Your task to perform on an android device: Show me popular videos on Youtube Image 0: 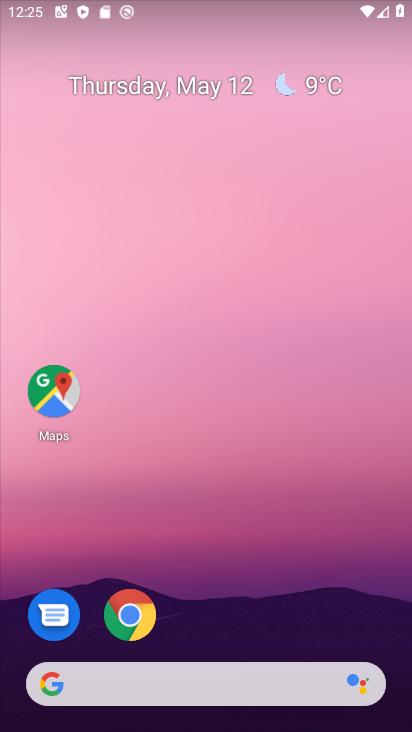
Step 0: drag from (359, 548) to (363, 22)
Your task to perform on an android device: Show me popular videos on Youtube Image 1: 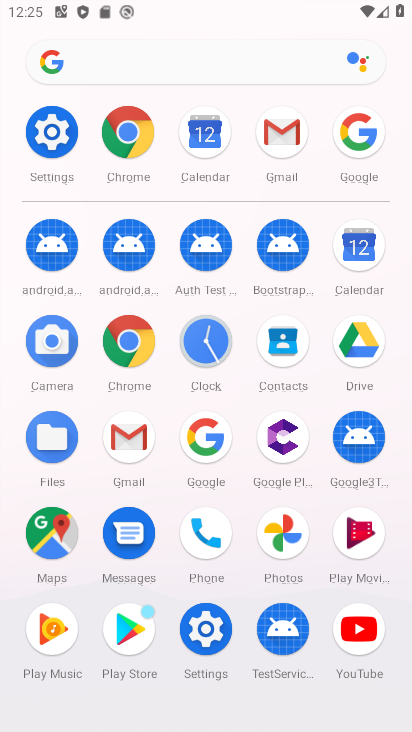
Step 1: click (364, 643)
Your task to perform on an android device: Show me popular videos on Youtube Image 2: 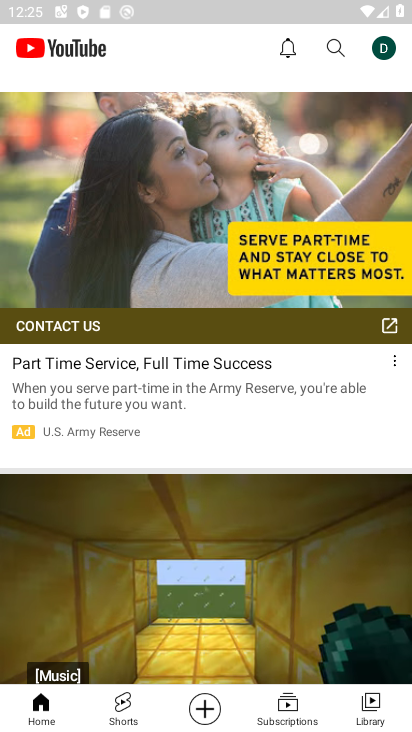
Step 2: click (39, 42)
Your task to perform on an android device: Show me popular videos on Youtube Image 3: 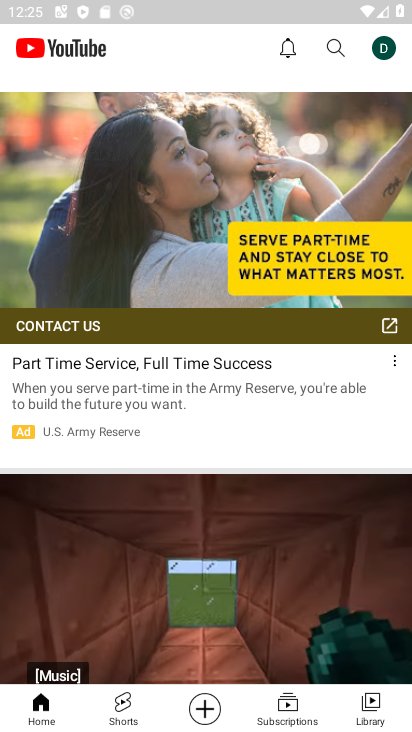
Step 3: click (41, 47)
Your task to perform on an android device: Show me popular videos on Youtube Image 4: 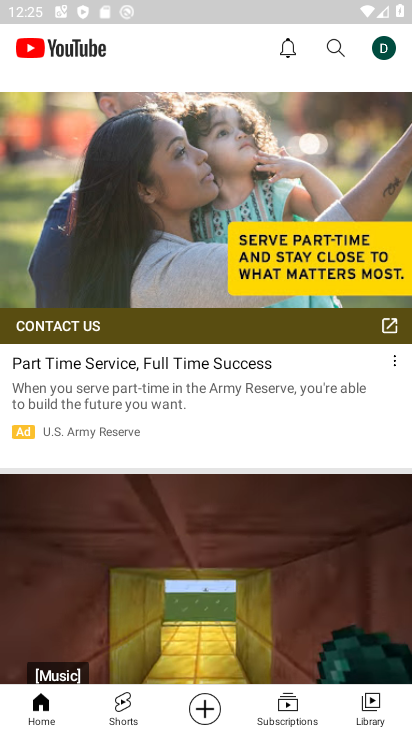
Step 4: drag from (150, 516) to (198, 43)
Your task to perform on an android device: Show me popular videos on Youtube Image 5: 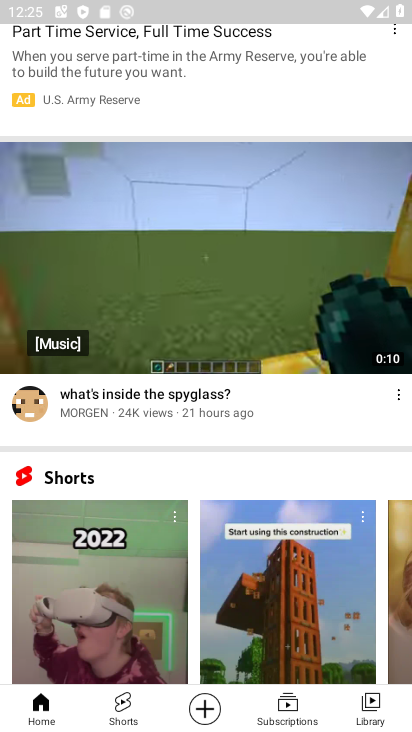
Step 5: drag from (219, 458) to (206, 36)
Your task to perform on an android device: Show me popular videos on Youtube Image 6: 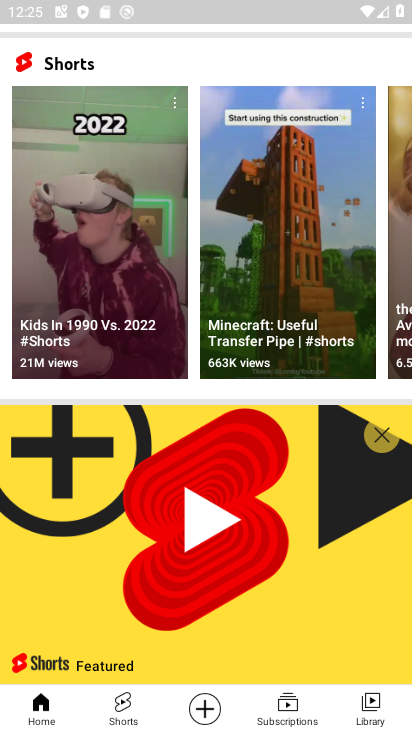
Step 6: drag from (200, 473) to (259, 23)
Your task to perform on an android device: Show me popular videos on Youtube Image 7: 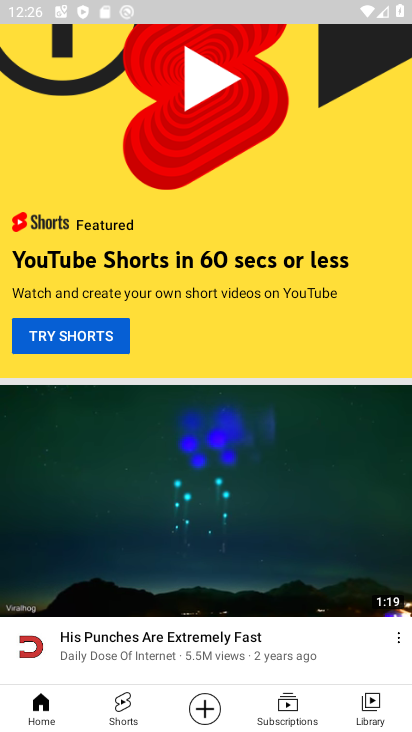
Step 7: drag from (217, 512) to (338, 106)
Your task to perform on an android device: Show me popular videos on Youtube Image 8: 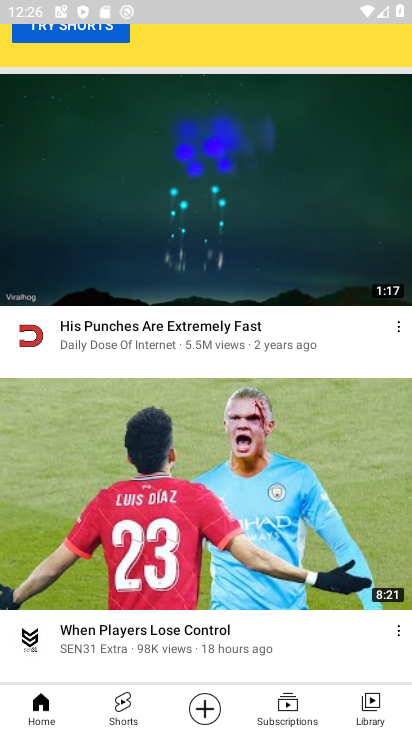
Step 8: drag from (233, 482) to (253, 155)
Your task to perform on an android device: Show me popular videos on Youtube Image 9: 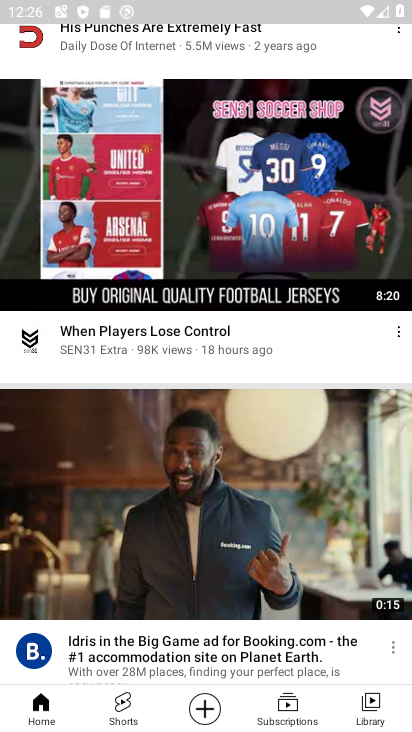
Step 9: drag from (185, 606) to (256, 396)
Your task to perform on an android device: Show me popular videos on Youtube Image 10: 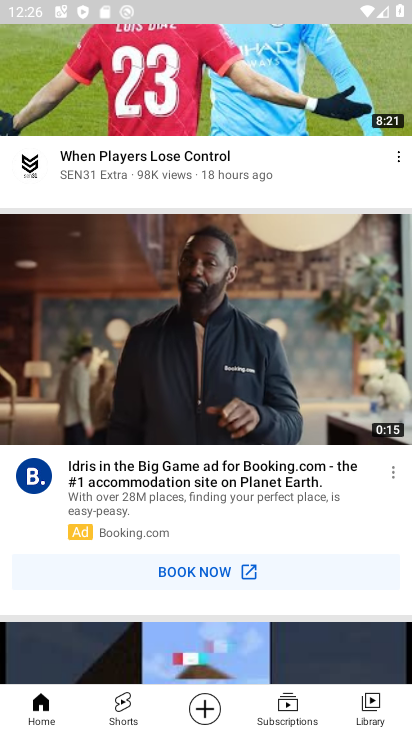
Step 10: click (268, 701)
Your task to perform on an android device: Show me popular videos on Youtube Image 11: 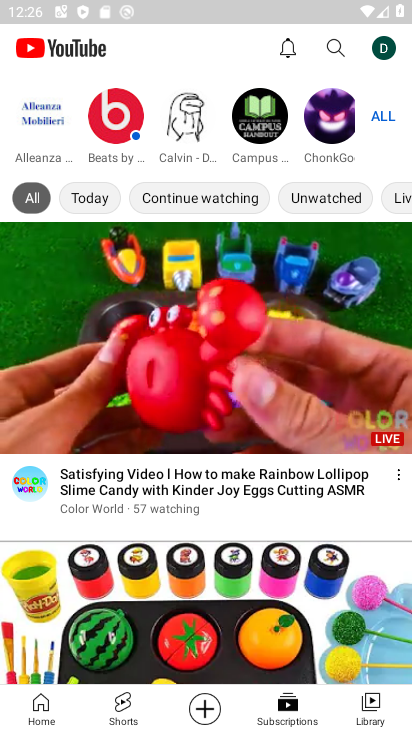
Step 11: click (395, 705)
Your task to perform on an android device: Show me popular videos on Youtube Image 12: 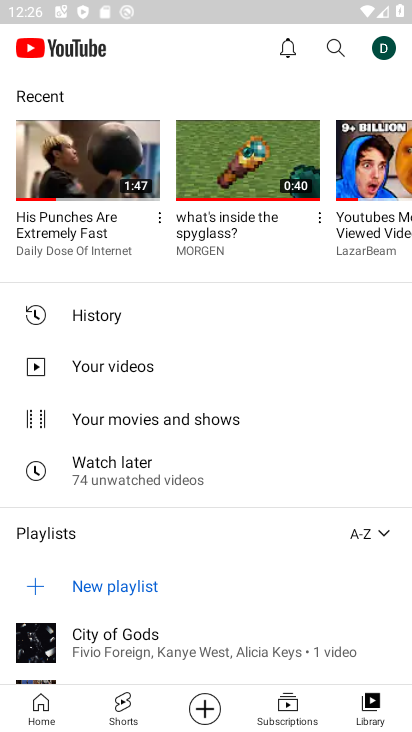
Step 12: click (62, 710)
Your task to perform on an android device: Show me popular videos on Youtube Image 13: 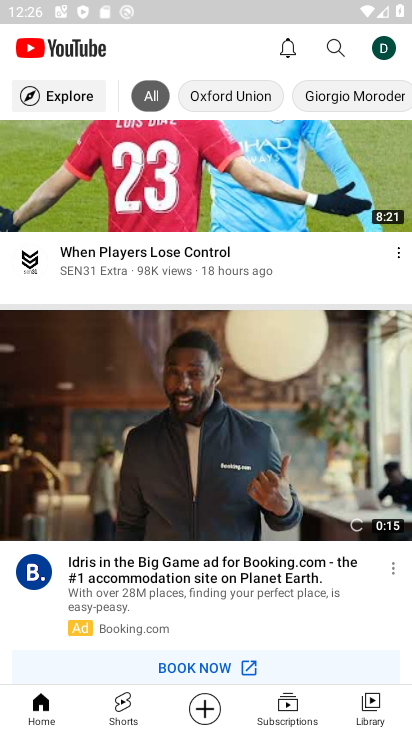
Step 13: drag from (176, 285) to (250, 728)
Your task to perform on an android device: Show me popular videos on Youtube Image 14: 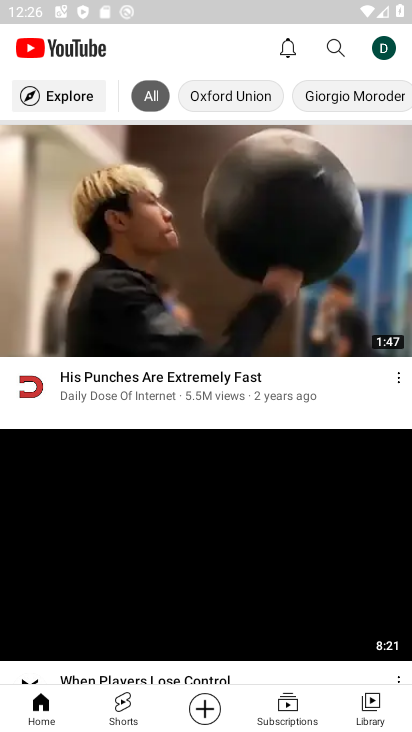
Step 14: drag from (196, 319) to (228, 679)
Your task to perform on an android device: Show me popular videos on Youtube Image 15: 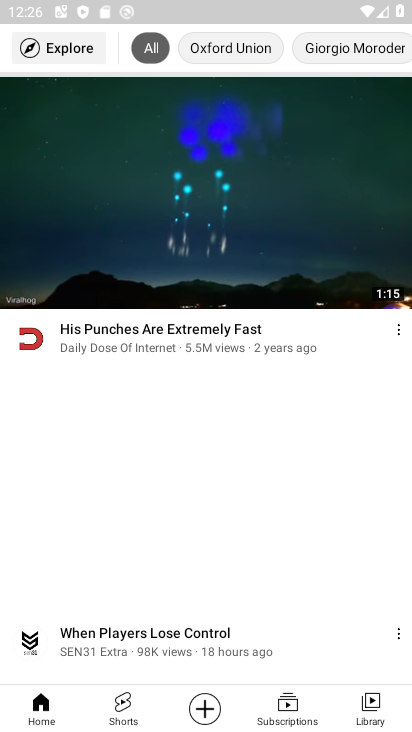
Step 15: drag from (132, 396) to (163, 659)
Your task to perform on an android device: Show me popular videos on Youtube Image 16: 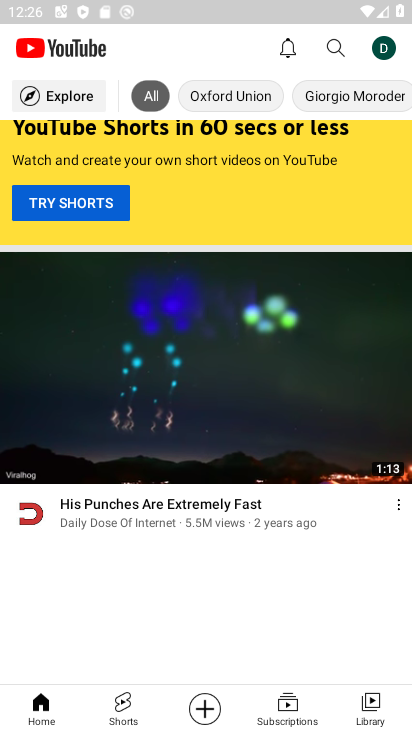
Step 16: click (45, 43)
Your task to perform on an android device: Show me popular videos on Youtube Image 17: 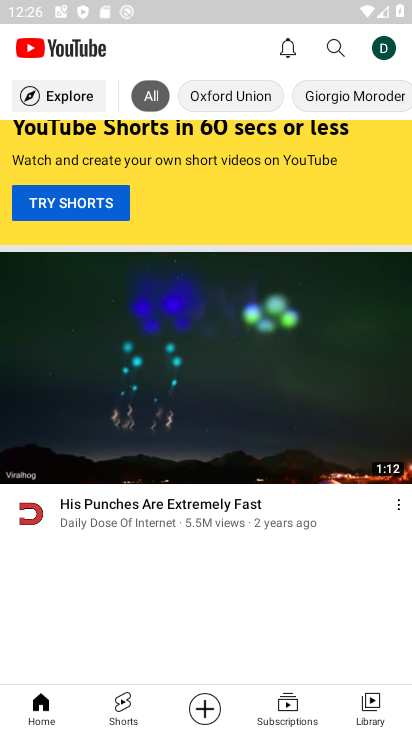
Step 17: click (68, 50)
Your task to perform on an android device: Show me popular videos on Youtube Image 18: 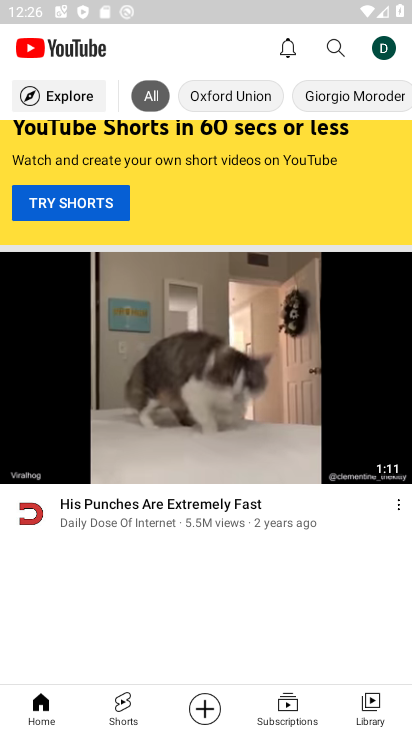
Step 18: drag from (92, 212) to (179, 711)
Your task to perform on an android device: Show me popular videos on Youtube Image 19: 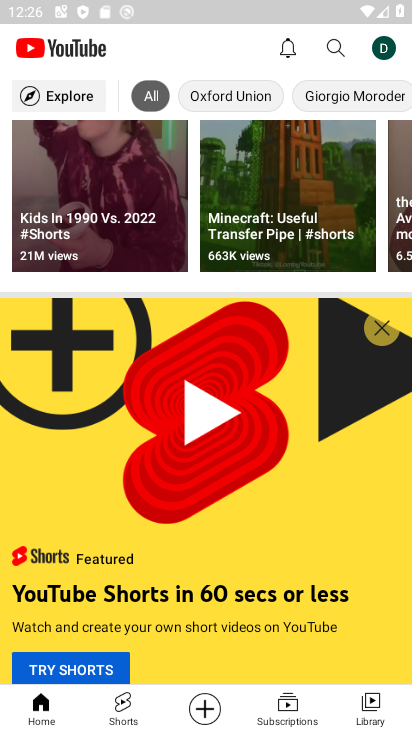
Step 19: drag from (217, 168) to (184, 661)
Your task to perform on an android device: Show me popular videos on Youtube Image 20: 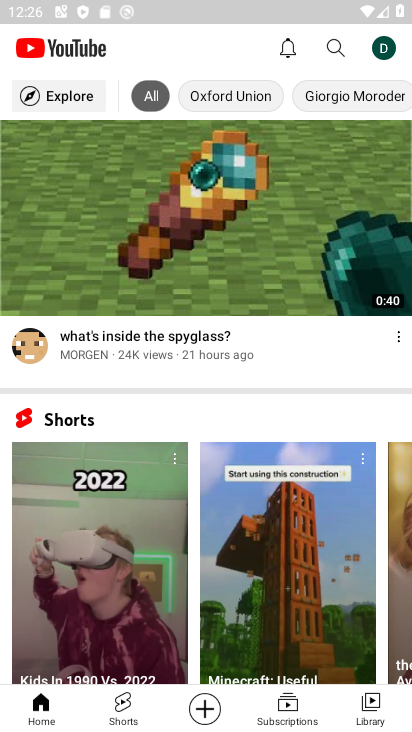
Step 20: click (61, 102)
Your task to perform on an android device: Show me popular videos on Youtube Image 21: 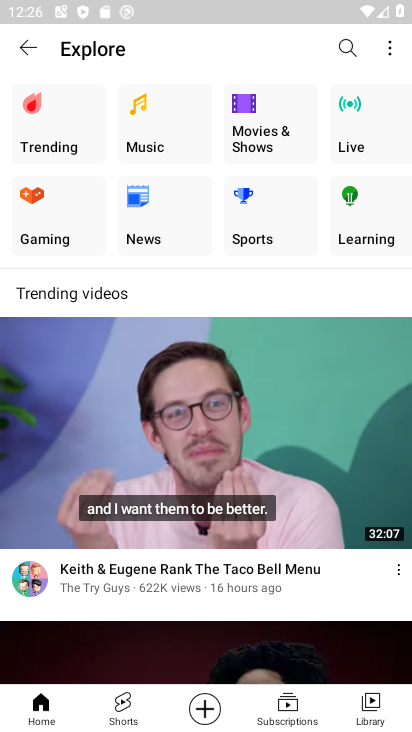
Step 21: drag from (377, 167) to (33, 152)
Your task to perform on an android device: Show me popular videos on Youtube Image 22: 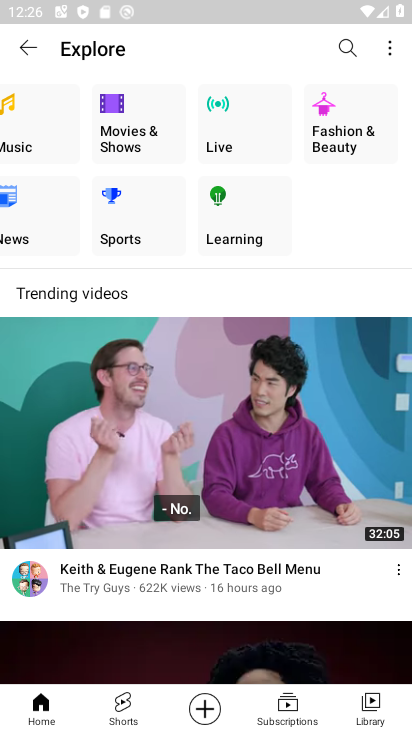
Step 22: drag from (27, 159) to (400, 149)
Your task to perform on an android device: Show me popular videos on Youtube Image 23: 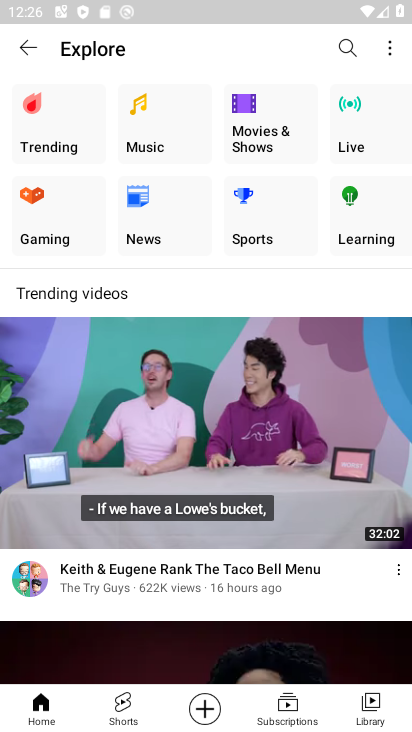
Step 23: drag from (193, 376) to (290, 15)
Your task to perform on an android device: Show me popular videos on Youtube Image 24: 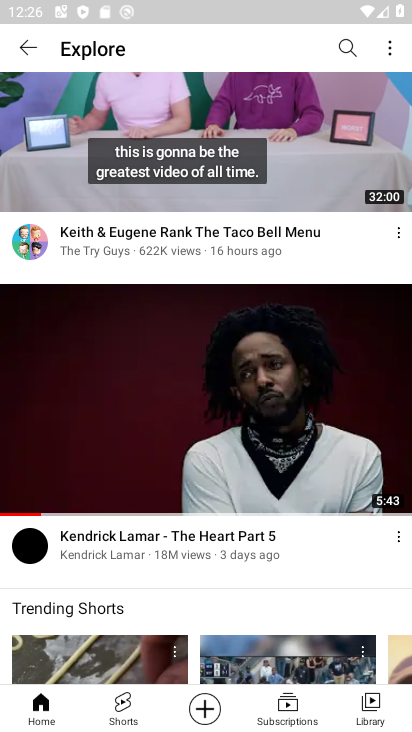
Step 24: drag from (228, 554) to (339, 65)
Your task to perform on an android device: Show me popular videos on Youtube Image 25: 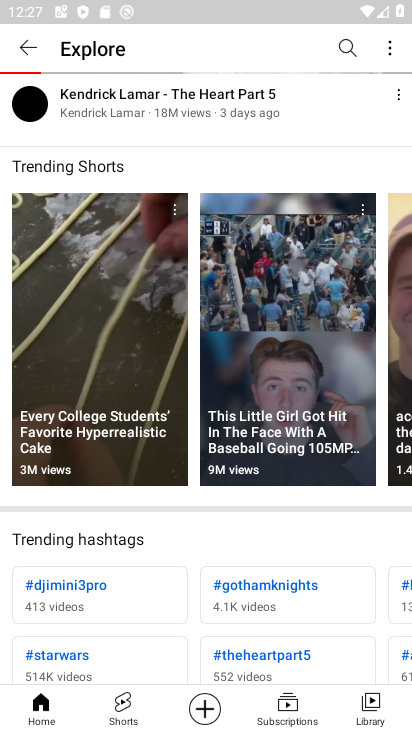
Step 25: drag from (197, 636) to (402, 178)
Your task to perform on an android device: Show me popular videos on Youtube Image 26: 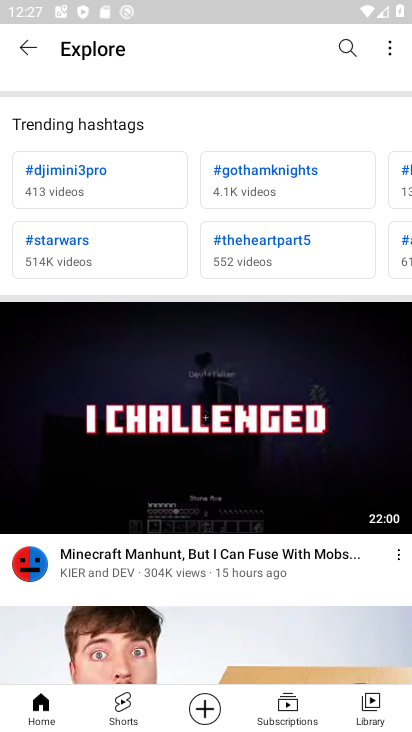
Step 26: drag from (192, 637) to (317, 273)
Your task to perform on an android device: Show me popular videos on Youtube Image 27: 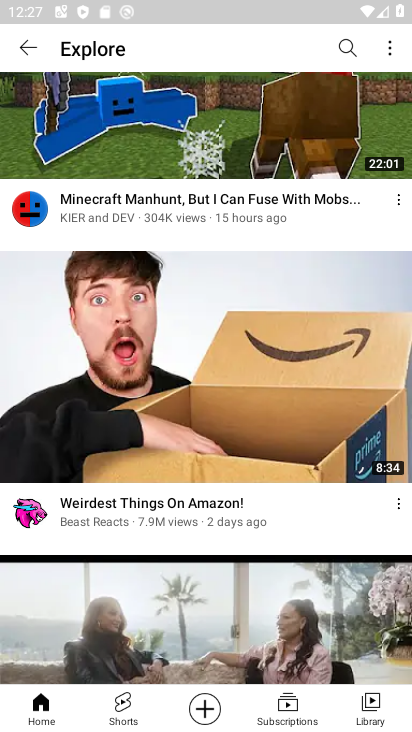
Step 27: drag from (175, 214) to (215, 730)
Your task to perform on an android device: Show me popular videos on Youtube Image 28: 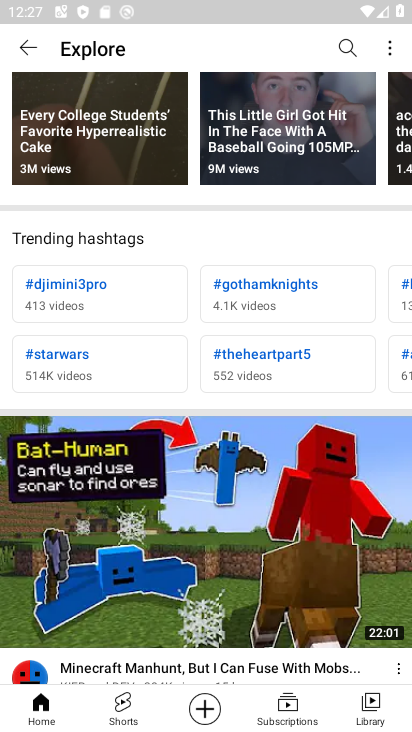
Step 28: drag from (182, 242) to (221, 707)
Your task to perform on an android device: Show me popular videos on Youtube Image 29: 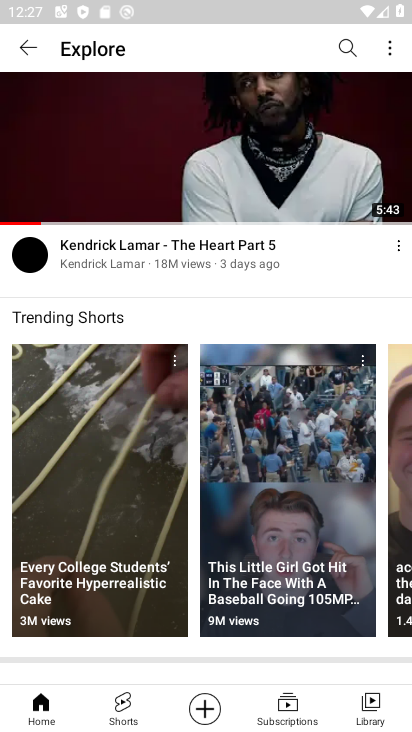
Step 29: drag from (180, 275) to (213, 714)
Your task to perform on an android device: Show me popular videos on Youtube Image 30: 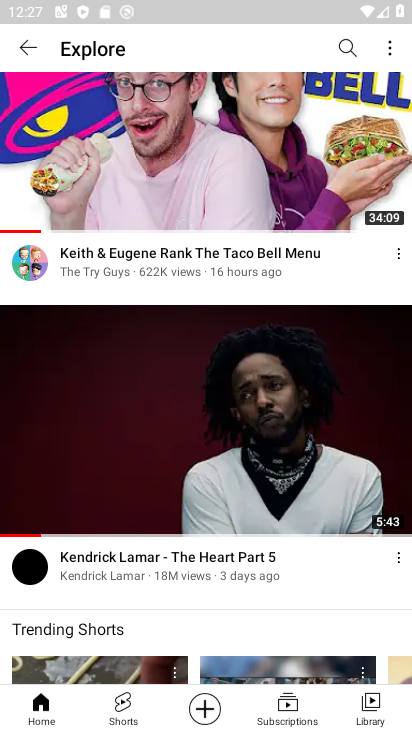
Step 30: drag from (192, 209) to (158, 705)
Your task to perform on an android device: Show me popular videos on Youtube Image 31: 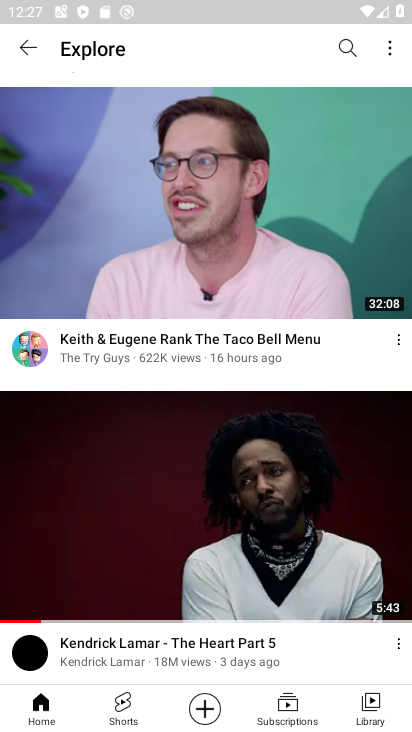
Step 31: drag from (148, 85) to (213, 653)
Your task to perform on an android device: Show me popular videos on Youtube Image 32: 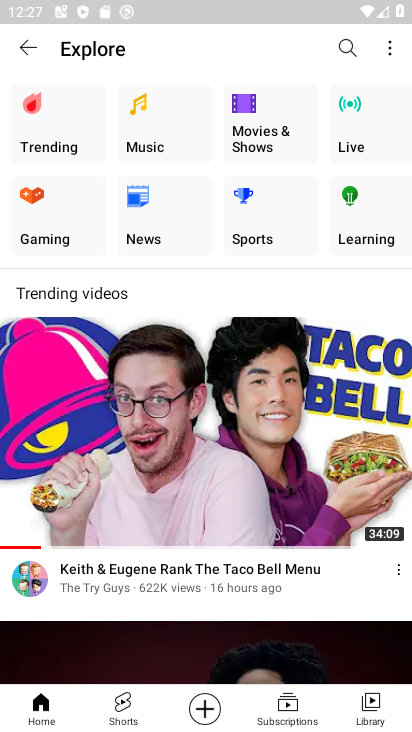
Step 32: click (29, 53)
Your task to perform on an android device: Show me popular videos on Youtube Image 33: 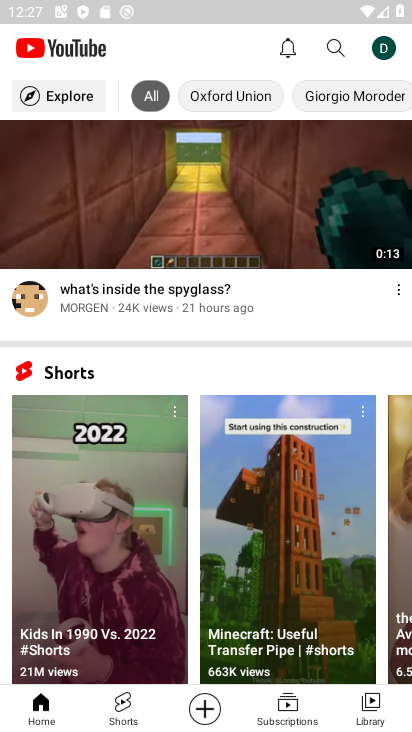
Step 33: drag from (279, 97) to (6, 109)
Your task to perform on an android device: Show me popular videos on Youtube Image 34: 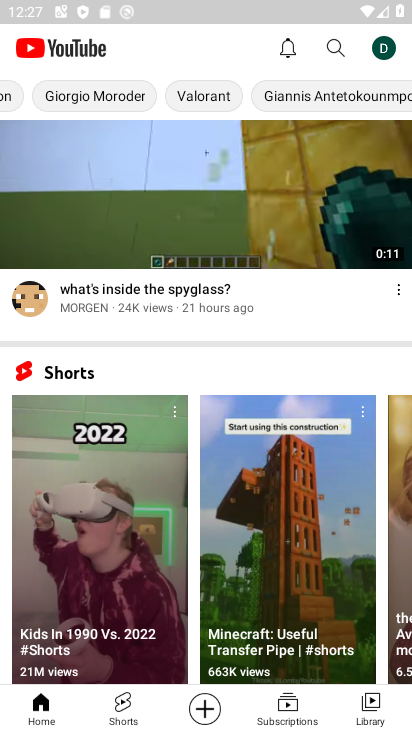
Step 34: drag from (323, 93) to (0, 112)
Your task to perform on an android device: Show me popular videos on Youtube Image 35: 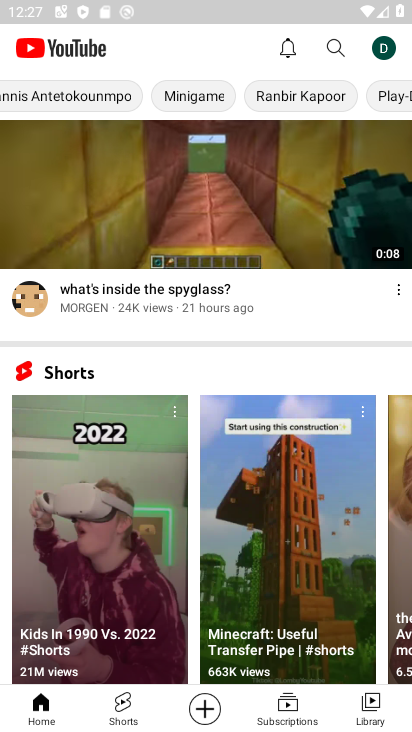
Step 35: drag from (329, 90) to (3, 117)
Your task to perform on an android device: Show me popular videos on Youtube Image 36: 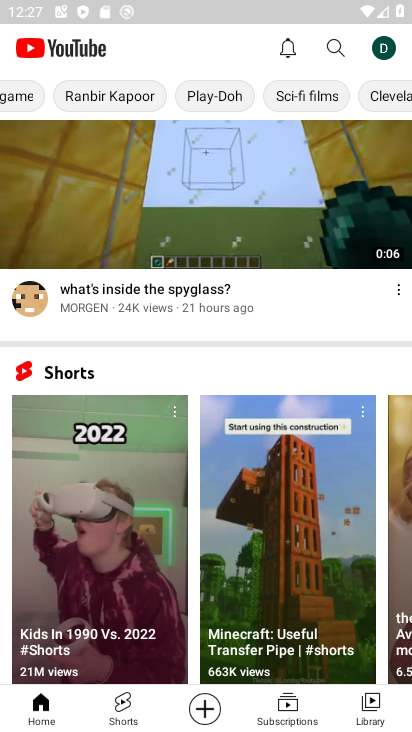
Step 36: drag from (336, 99) to (5, 96)
Your task to perform on an android device: Show me popular videos on Youtube Image 37: 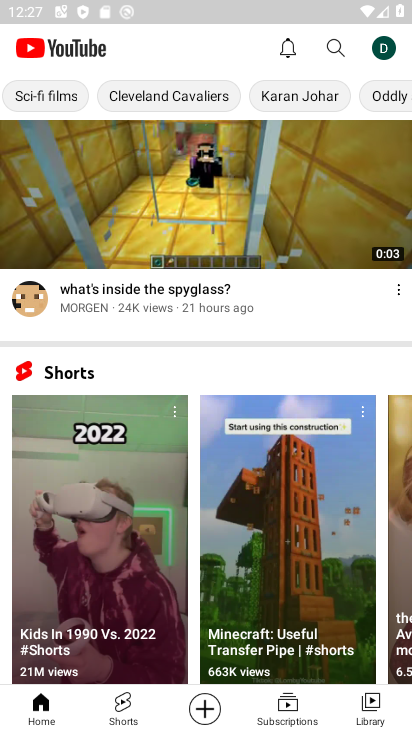
Step 37: drag from (320, 89) to (12, 84)
Your task to perform on an android device: Show me popular videos on Youtube Image 38: 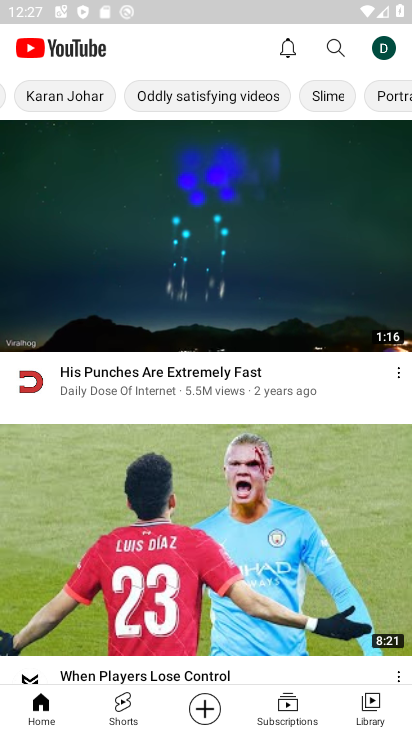
Step 38: drag from (382, 91) to (0, 110)
Your task to perform on an android device: Show me popular videos on Youtube Image 39: 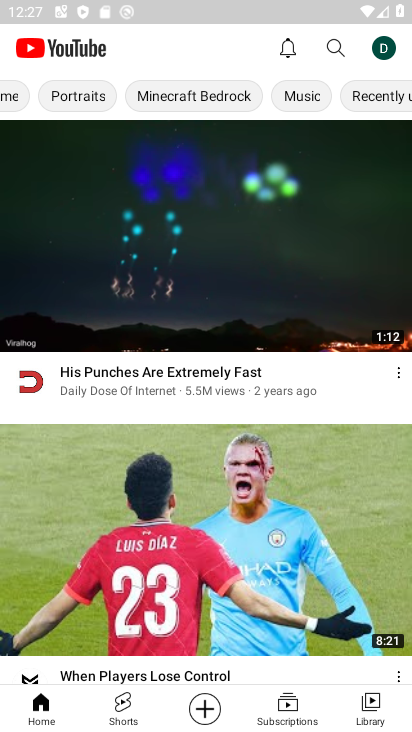
Step 39: drag from (374, 93) to (9, 69)
Your task to perform on an android device: Show me popular videos on Youtube Image 40: 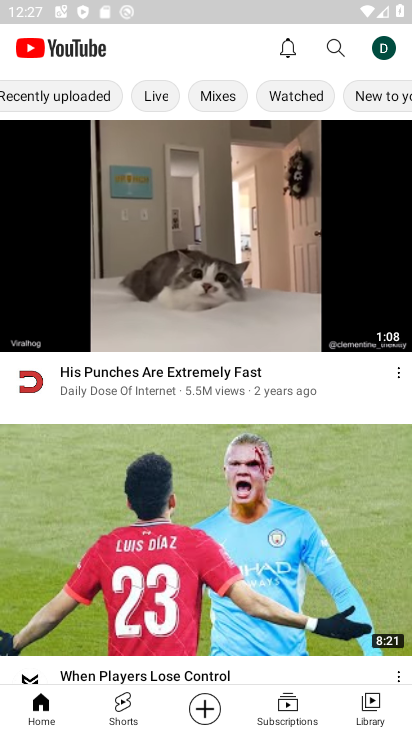
Step 40: drag from (381, 95) to (7, 130)
Your task to perform on an android device: Show me popular videos on Youtube Image 41: 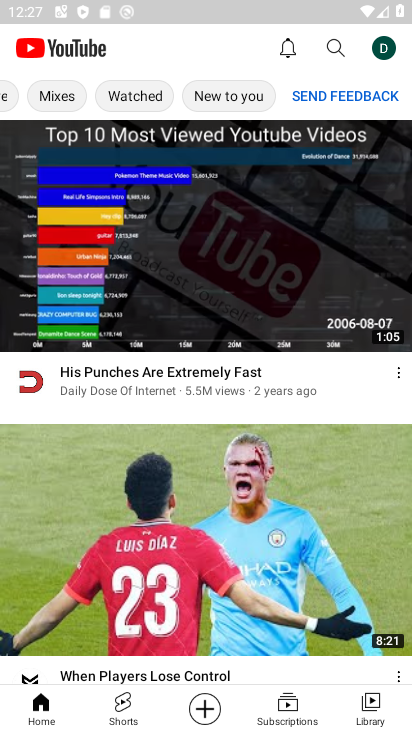
Step 41: drag from (314, 99) to (93, 97)
Your task to perform on an android device: Show me popular videos on Youtube Image 42: 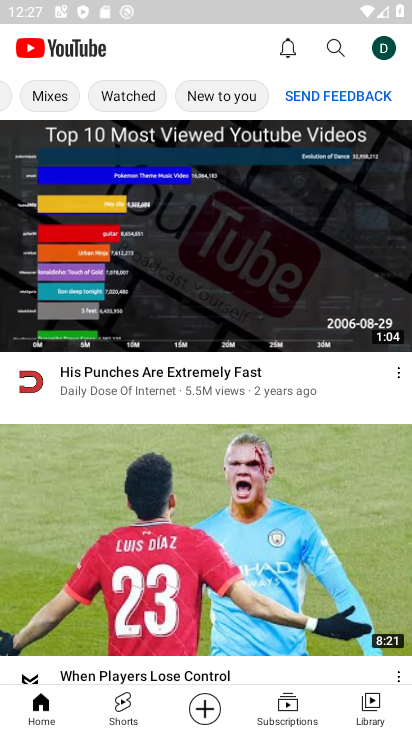
Step 42: drag from (98, 97) to (251, 92)
Your task to perform on an android device: Show me popular videos on Youtube Image 43: 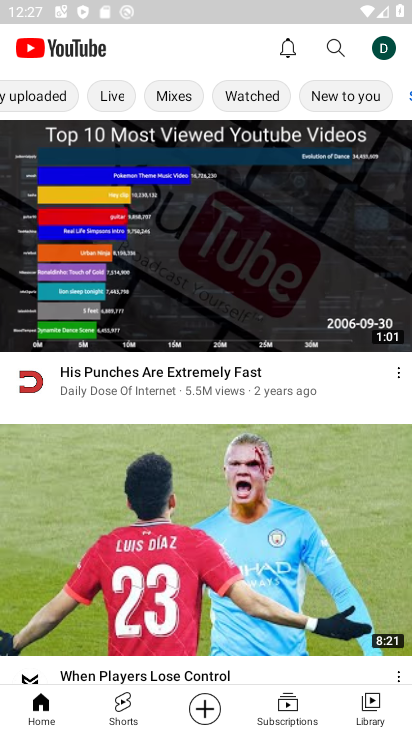
Step 43: drag from (50, 95) to (365, 92)
Your task to perform on an android device: Show me popular videos on Youtube Image 44: 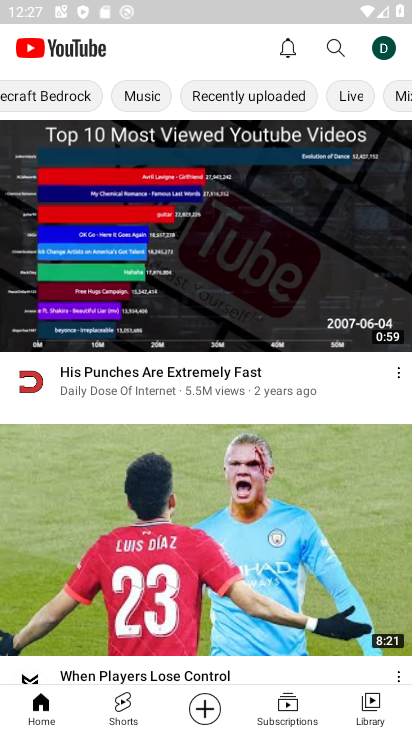
Step 44: drag from (69, 78) to (357, 90)
Your task to perform on an android device: Show me popular videos on Youtube Image 45: 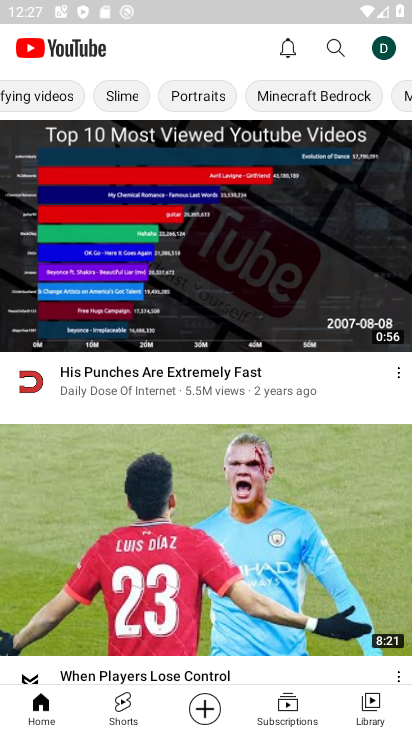
Step 45: drag from (85, 98) to (359, 98)
Your task to perform on an android device: Show me popular videos on Youtube Image 46: 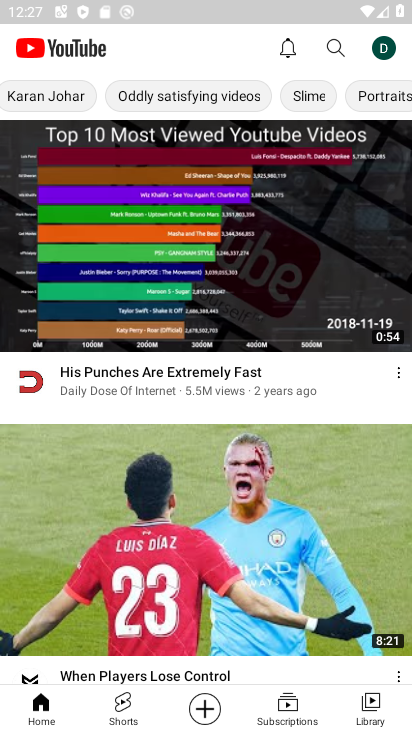
Step 46: drag from (48, 95) to (399, 151)
Your task to perform on an android device: Show me popular videos on Youtube Image 47: 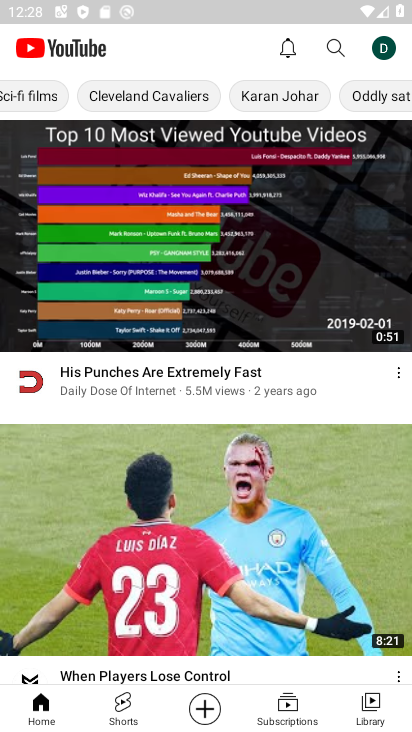
Step 47: drag from (34, 91) to (389, 76)
Your task to perform on an android device: Show me popular videos on Youtube Image 48: 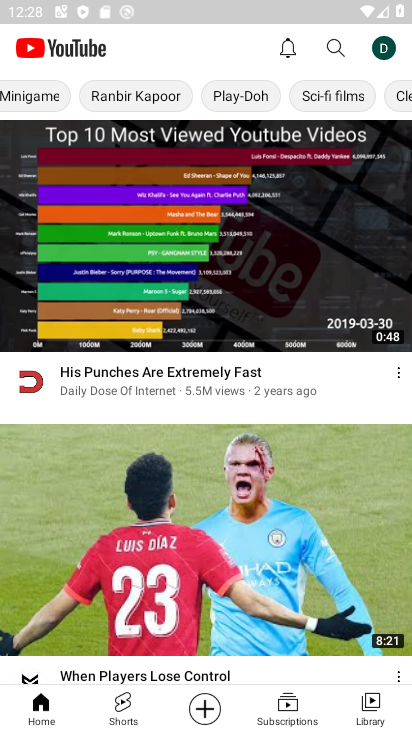
Step 48: drag from (44, 98) to (330, 111)
Your task to perform on an android device: Show me popular videos on Youtube Image 49: 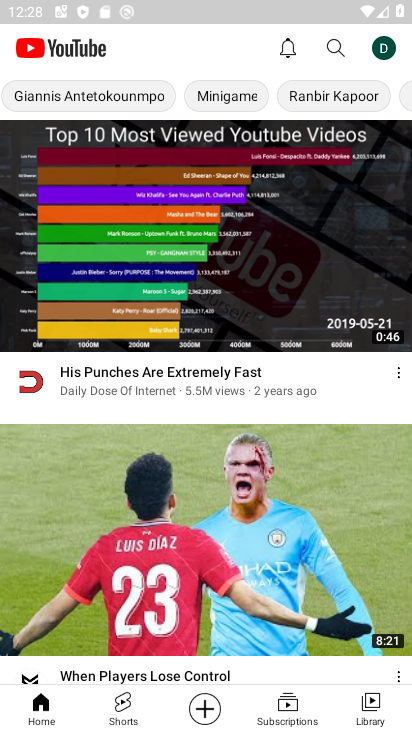
Step 49: drag from (32, 93) to (383, 81)
Your task to perform on an android device: Show me popular videos on Youtube Image 50: 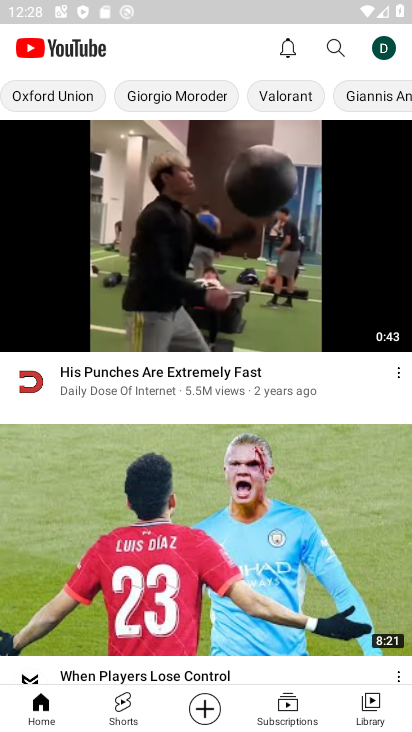
Step 50: drag from (7, 105) to (382, 102)
Your task to perform on an android device: Show me popular videos on Youtube Image 51: 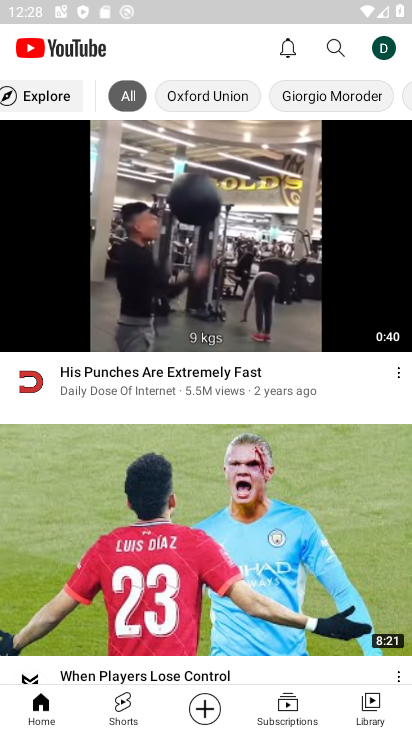
Step 51: click (21, 98)
Your task to perform on an android device: Show me popular videos on Youtube Image 52: 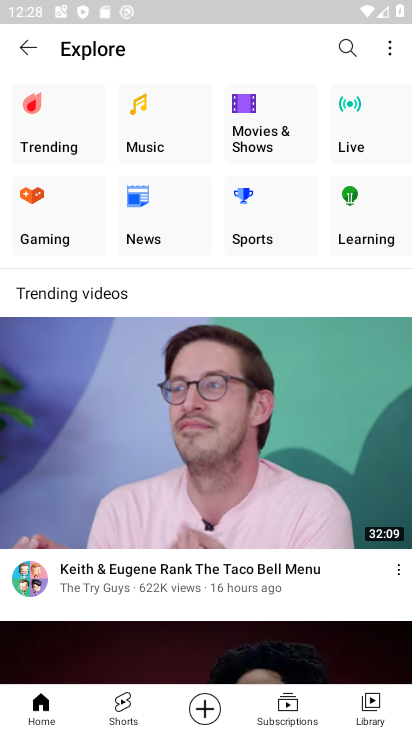
Step 52: click (26, 108)
Your task to perform on an android device: Show me popular videos on Youtube Image 53: 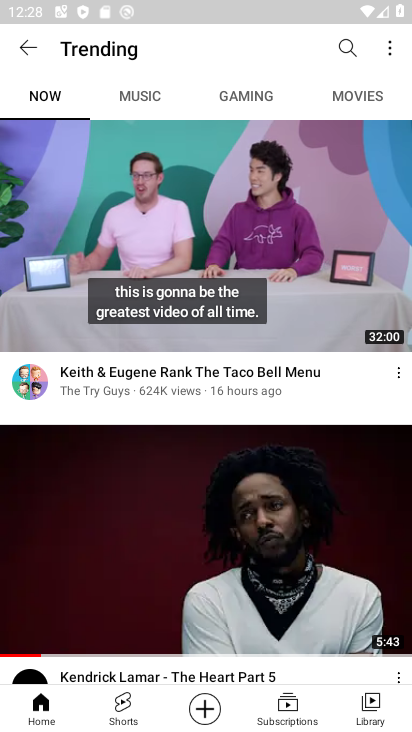
Step 53: click (137, 700)
Your task to perform on an android device: Show me popular videos on Youtube Image 54: 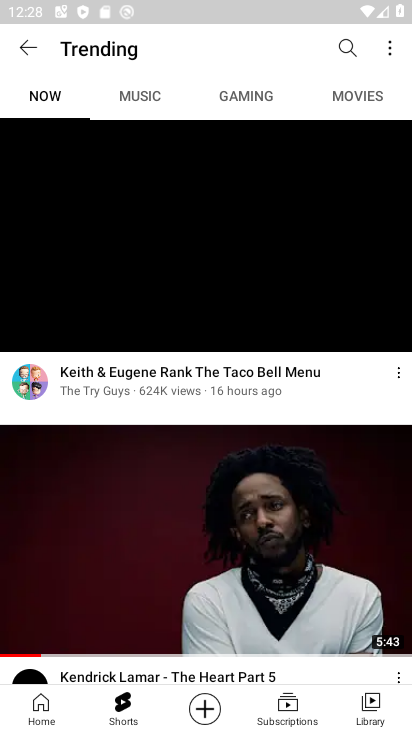
Step 54: click (120, 702)
Your task to perform on an android device: Show me popular videos on Youtube Image 55: 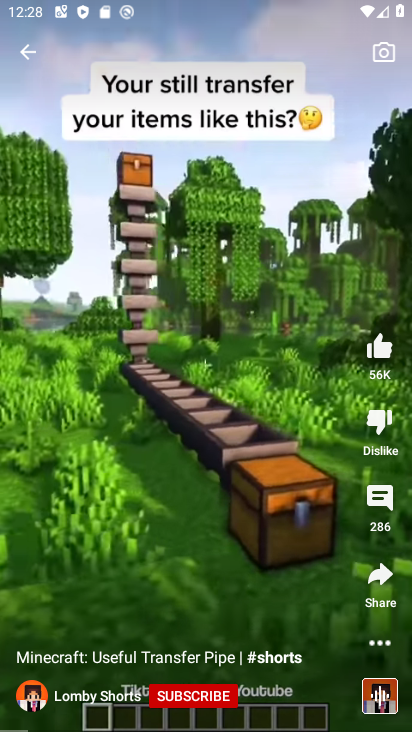
Step 55: click (35, 46)
Your task to perform on an android device: Show me popular videos on Youtube Image 56: 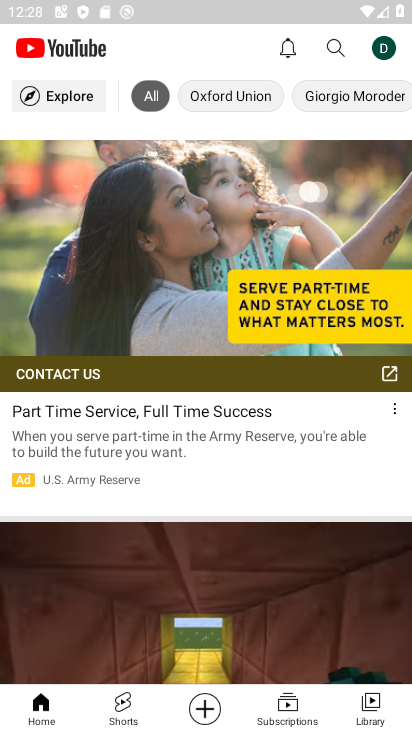
Step 56: click (373, 717)
Your task to perform on an android device: Show me popular videos on Youtube Image 57: 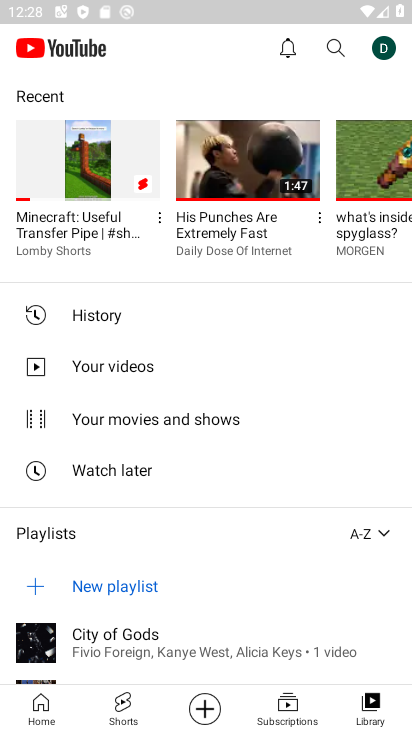
Step 57: task complete